Your task to perform on an android device: Open calendar and show me the third week of next month Image 0: 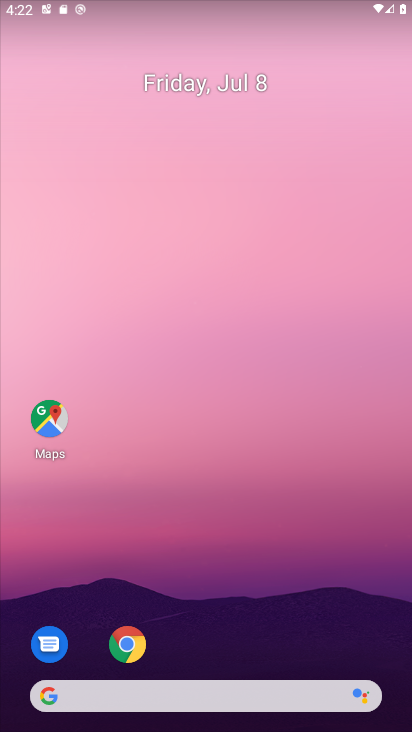
Step 0: drag from (358, 617) to (287, 88)
Your task to perform on an android device: Open calendar and show me the third week of next month Image 1: 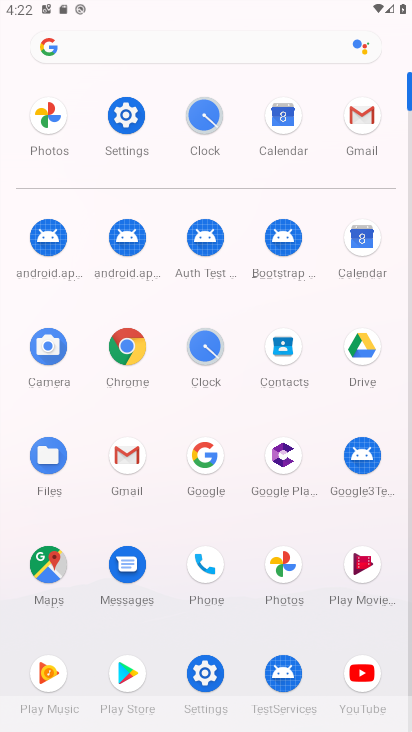
Step 1: click (364, 236)
Your task to perform on an android device: Open calendar and show me the third week of next month Image 2: 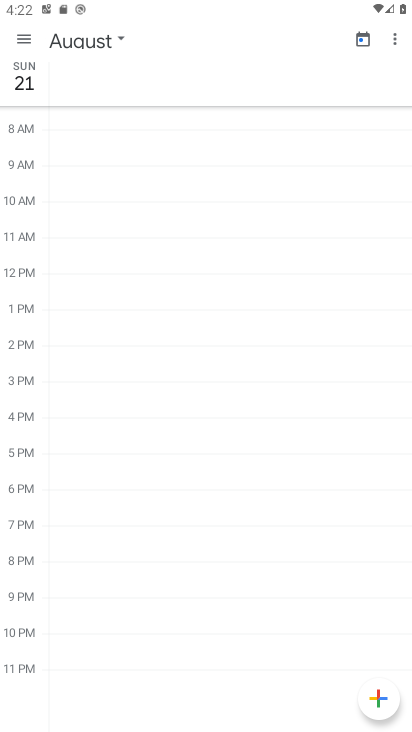
Step 2: click (24, 35)
Your task to perform on an android device: Open calendar and show me the third week of next month Image 3: 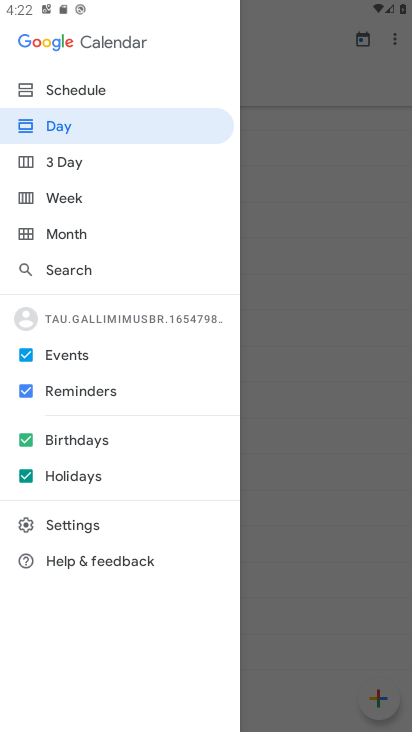
Step 3: click (59, 196)
Your task to perform on an android device: Open calendar and show me the third week of next month Image 4: 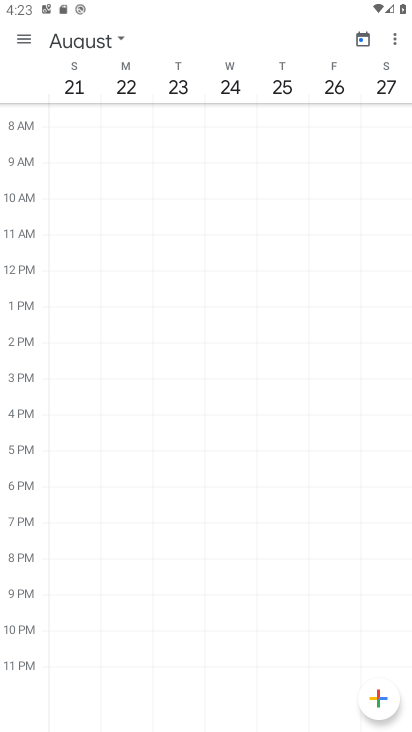
Step 4: click (122, 35)
Your task to perform on an android device: Open calendar and show me the third week of next month Image 5: 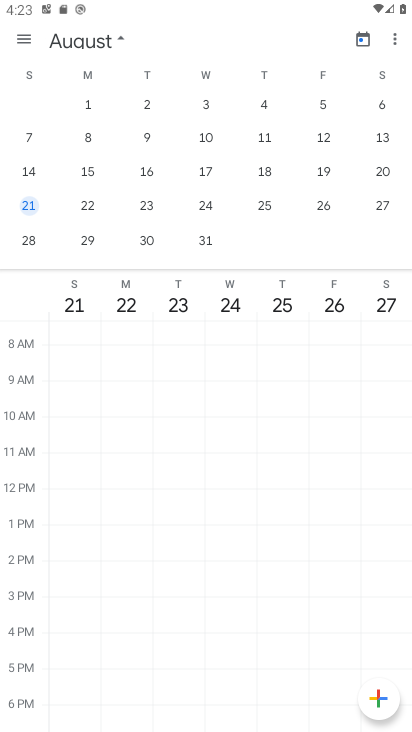
Step 5: task complete